Your task to perform on an android device: create a new album in the google photos Image 0: 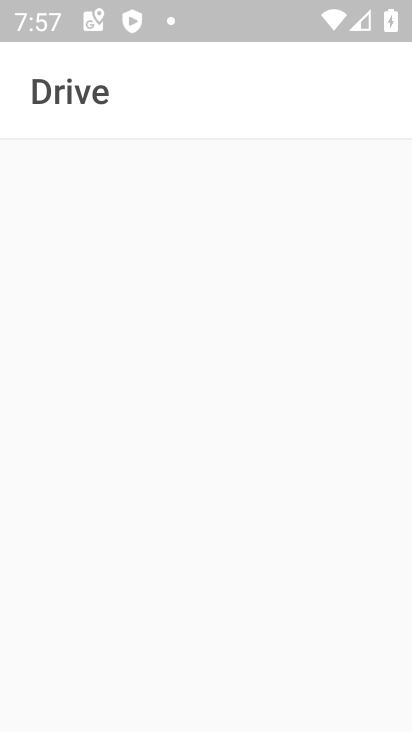
Step 0: press home button
Your task to perform on an android device: create a new album in the google photos Image 1: 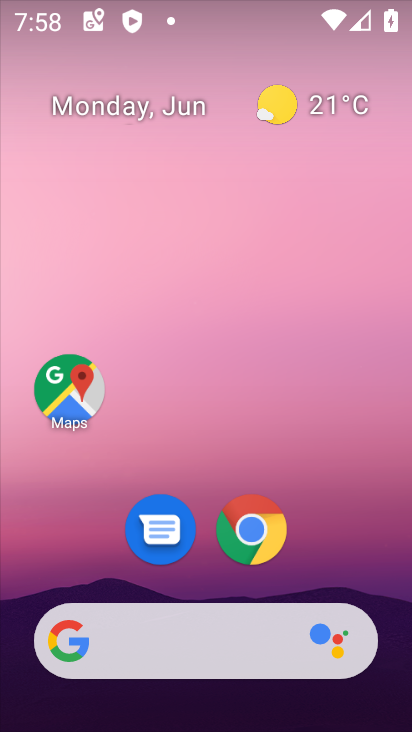
Step 1: drag from (82, 473) to (233, 201)
Your task to perform on an android device: create a new album in the google photos Image 2: 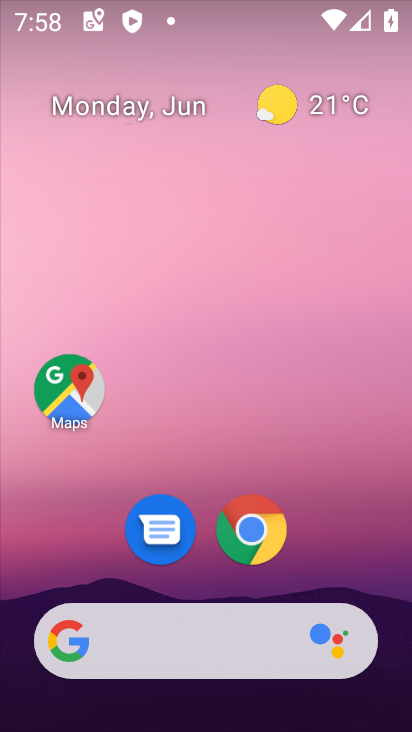
Step 2: drag from (29, 607) to (222, 49)
Your task to perform on an android device: create a new album in the google photos Image 3: 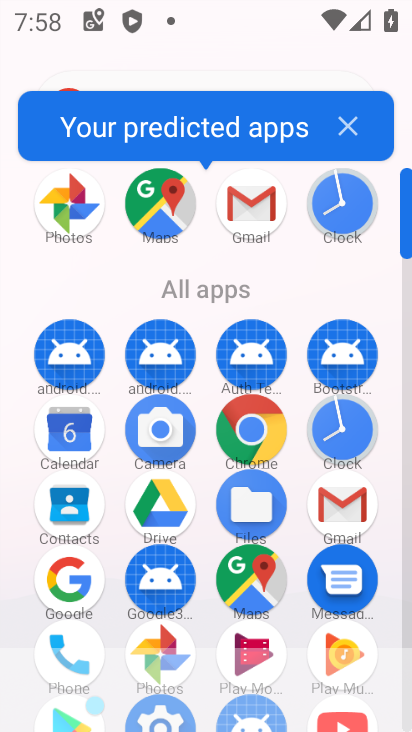
Step 3: click (72, 207)
Your task to perform on an android device: create a new album in the google photos Image 4: 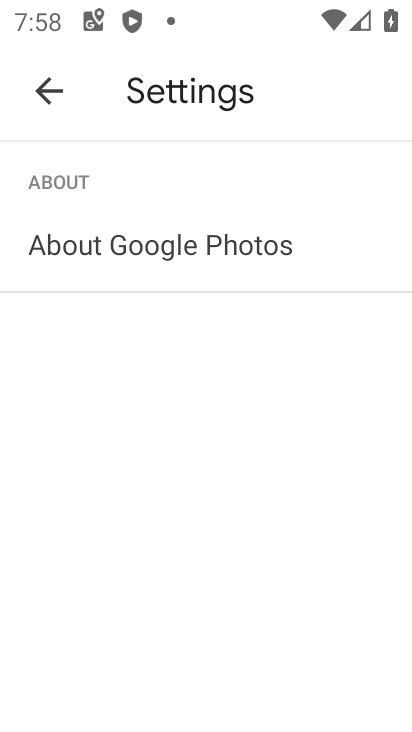
Step 4: click (44, 82)
Your task to perform on an android device: create a new album in the google photos Image 5: 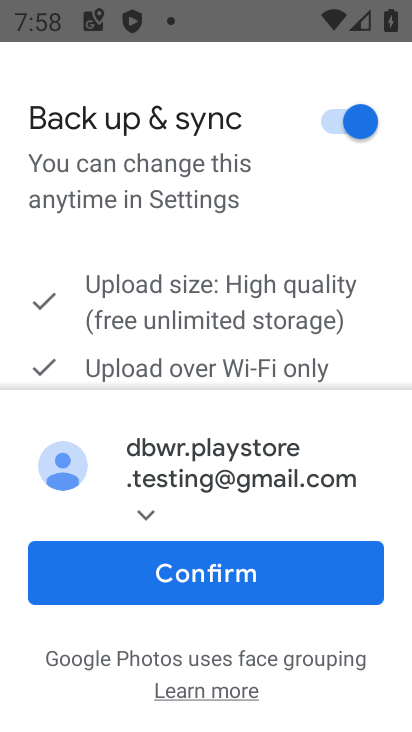
Step 5: click (199, 571)
Your task to perform on an android device: create a new album in the google photos Image 6: 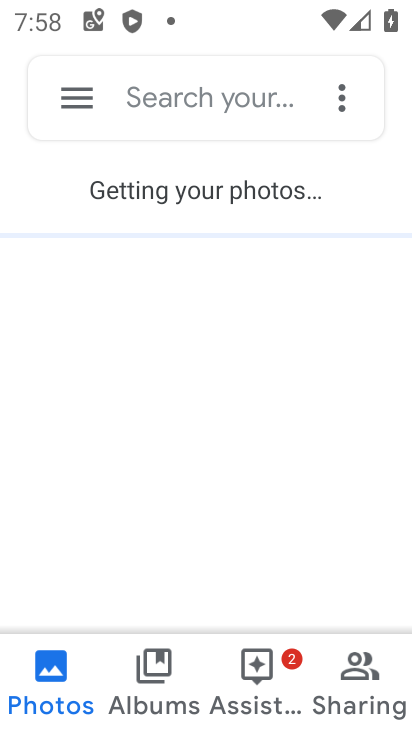
Step 6: click (141, 663)
Your task to perform on an android device: create a new album in the google photos Image 7: 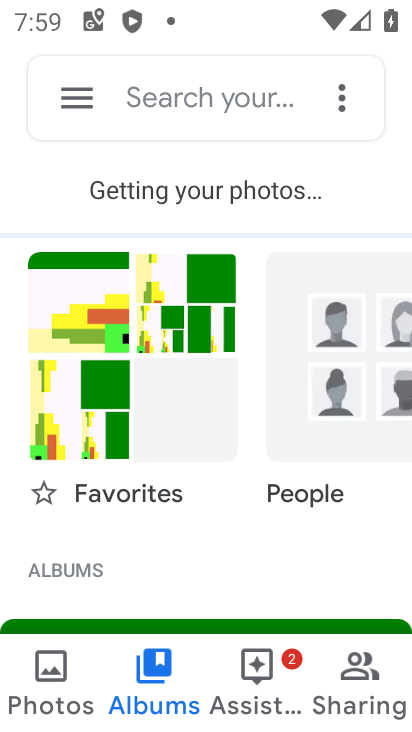
Step 7: click (162, 682)
Your task to perform on an android device: create a new album in the google photos Image 8: 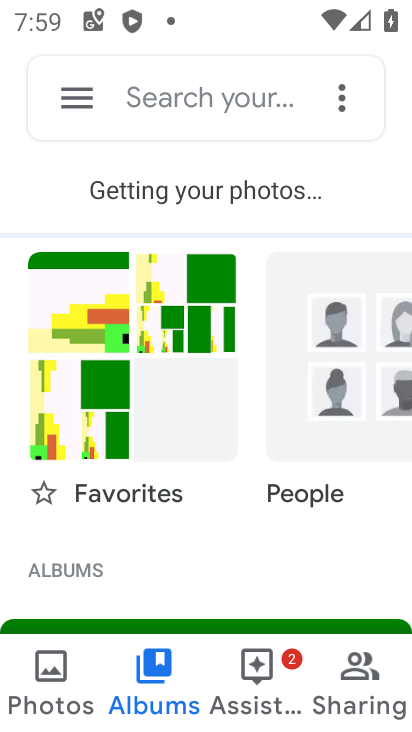
Step 8: click (341, 105)
Your task to perform on an android device: create a new album in the google photos Image 9: 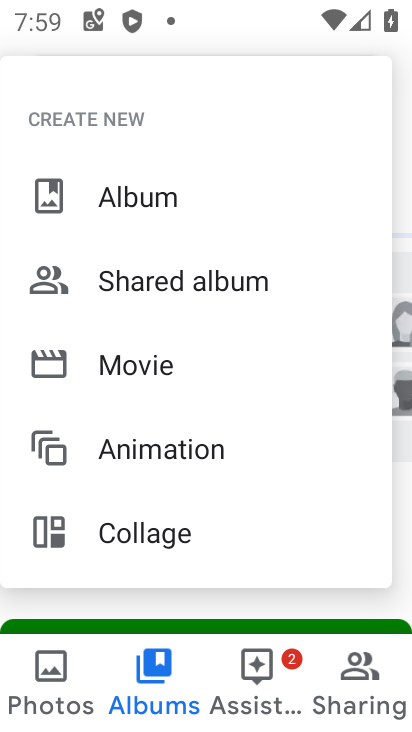
Step 9: click (134, 200)
Your task to perform on an android device: create a new album in the google photos Image 10: 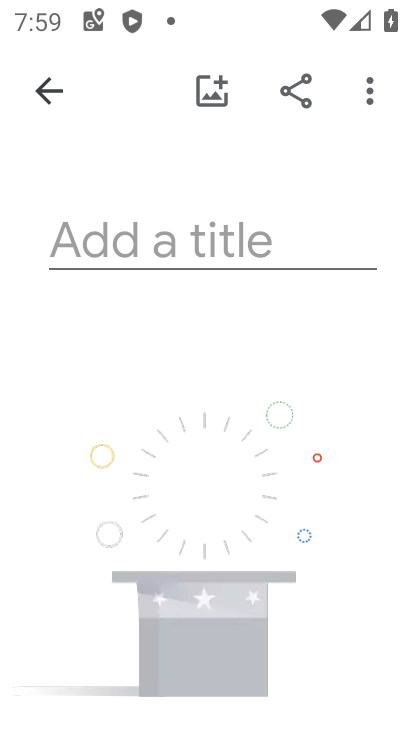
Step 10: click (209, 88)
Your task to perform on an android device: create a new album in the google photos Image 11: 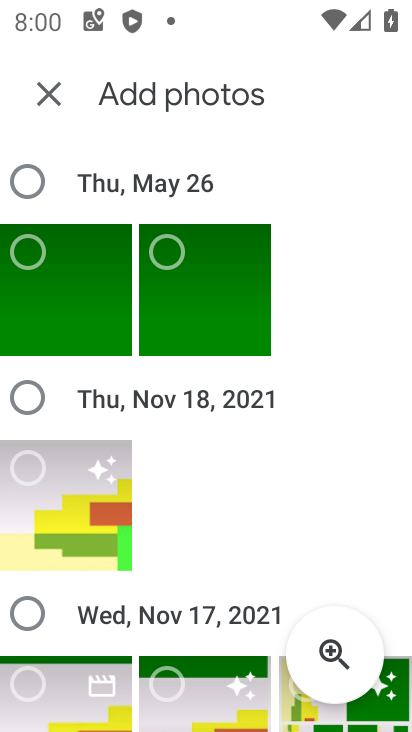
Step 11: click (20, 256)
Your task to perform on an android device: create a new album in the google photos Image 12: 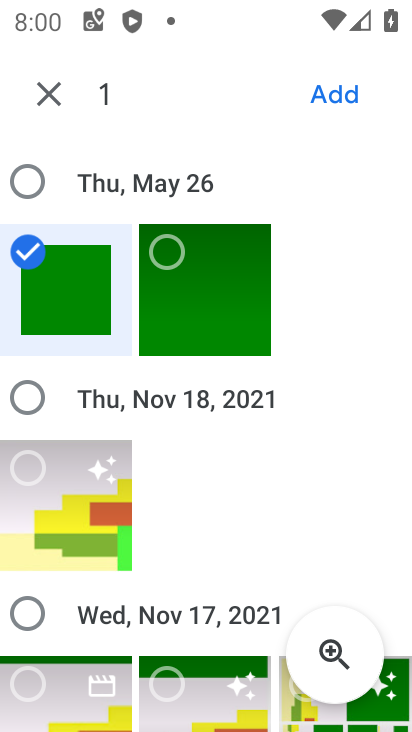
Step 12: click (322, 103)
Your task to perform on an android device: create a new album in the google photos Image 13: 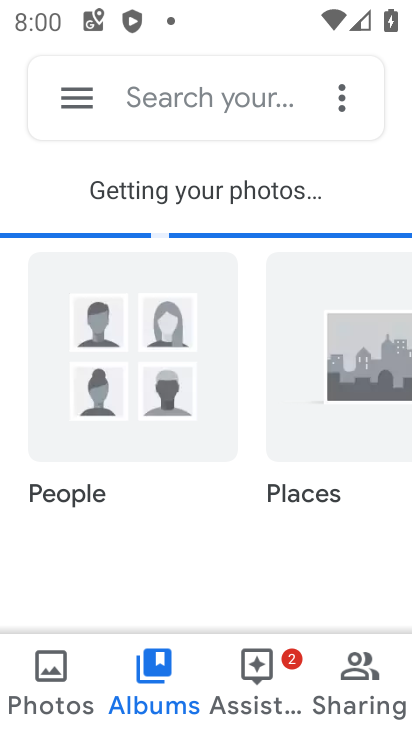
Step 13: task complete